Your task to perform on an android device: Do I have any events today? Image 0: 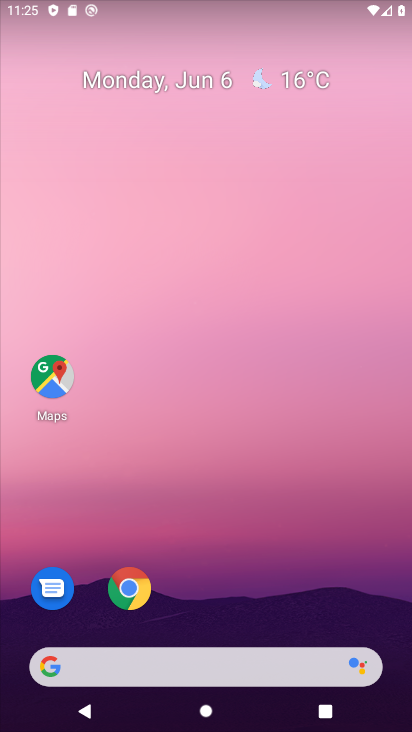
Step 0: drag from (366, 618) to (232, 38)
Your task to perform on an android device: Do I have any events today? Image 1: 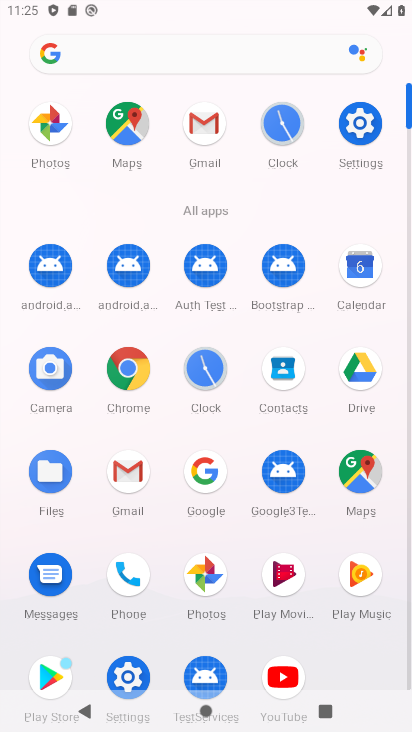
Step 1: click (373, 272)
Your task to perform on an android device: Do I have any events today? Image 2: 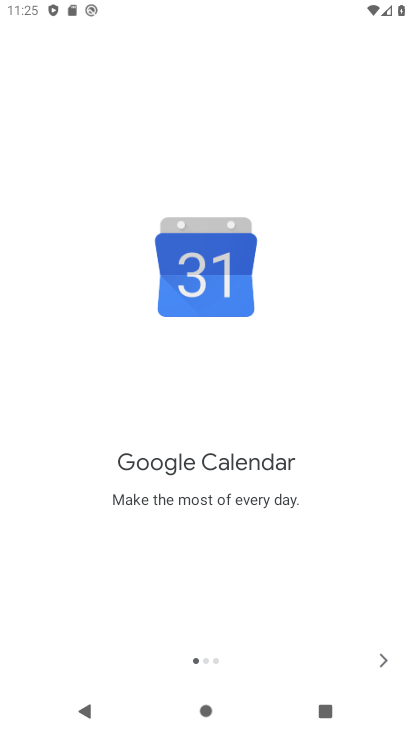
Step 2: click (380, 657)
Your task to perform on an android device: Do I have any events today? Image 3: 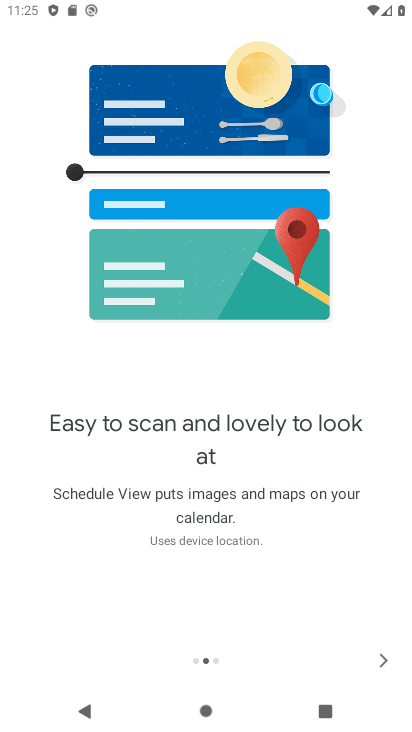
Step 3: click (380, 657)
Your task to perform on an android device: Do I have any events today? Image 4: 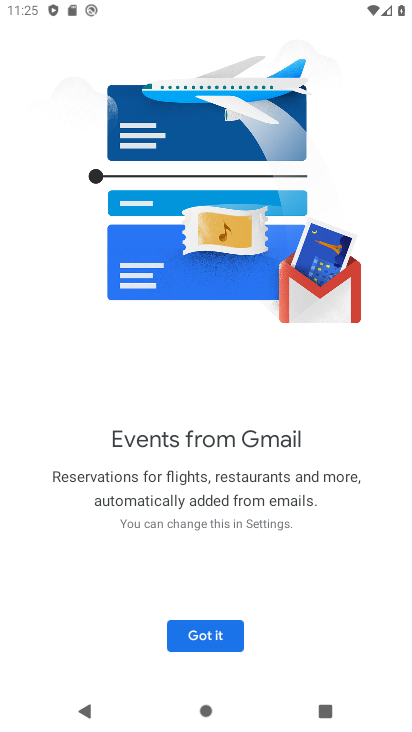
Step 4: click (217, 639)
Your task to perform on an android device: Do I have any events today? Image 5: 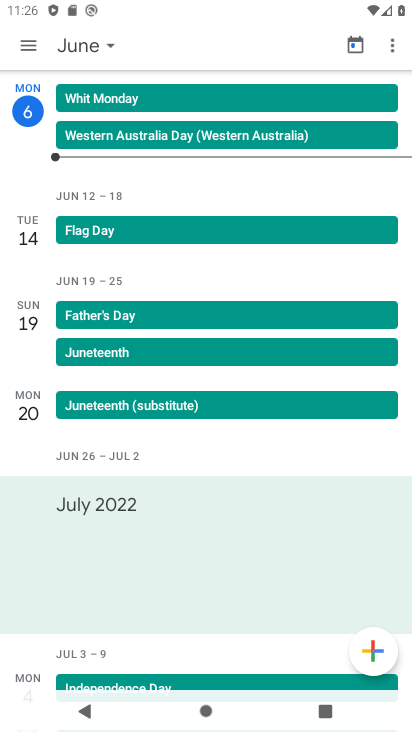
Step 5: task complete